Your task to perform on an android device: clear history in the chrome app Image 0: 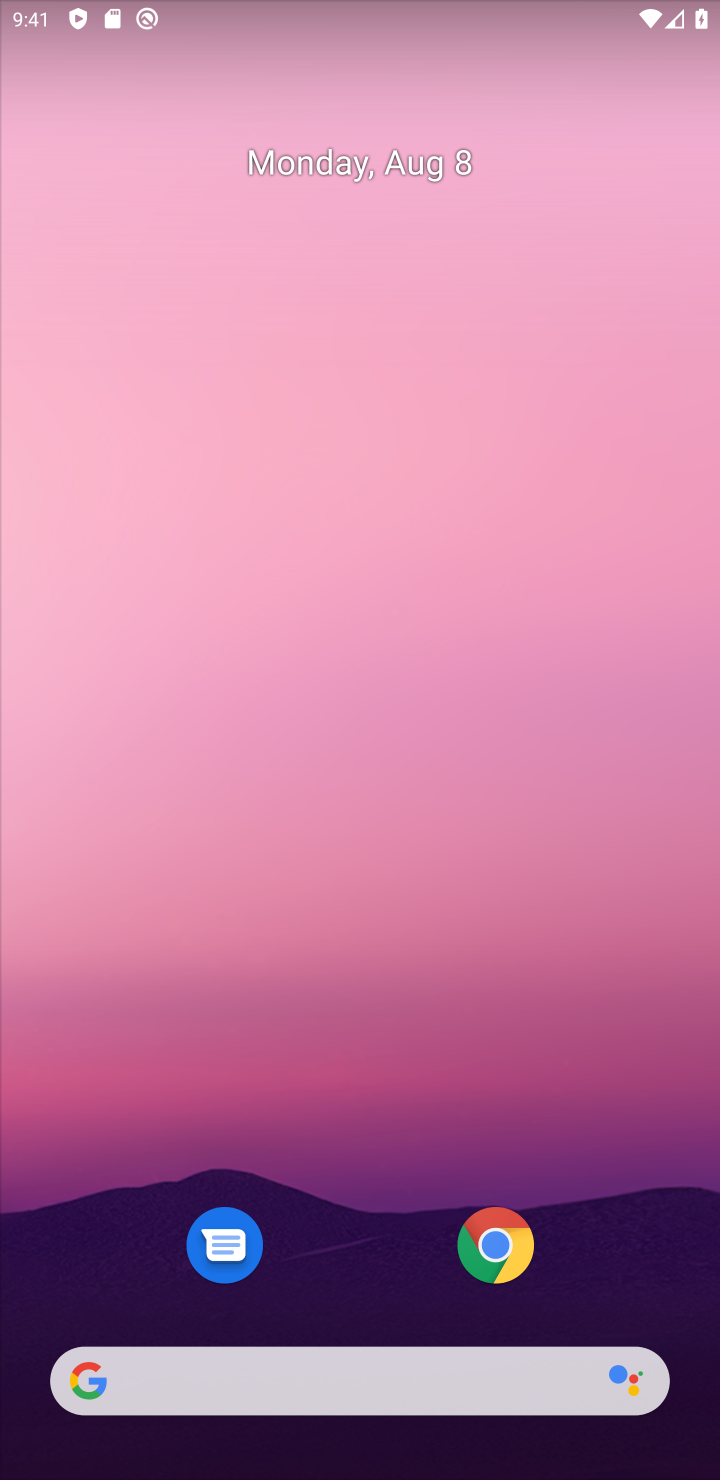
Step 0: click (492, 1247)
Your task to perform on an android device: clear history in the chrome app Image 1: 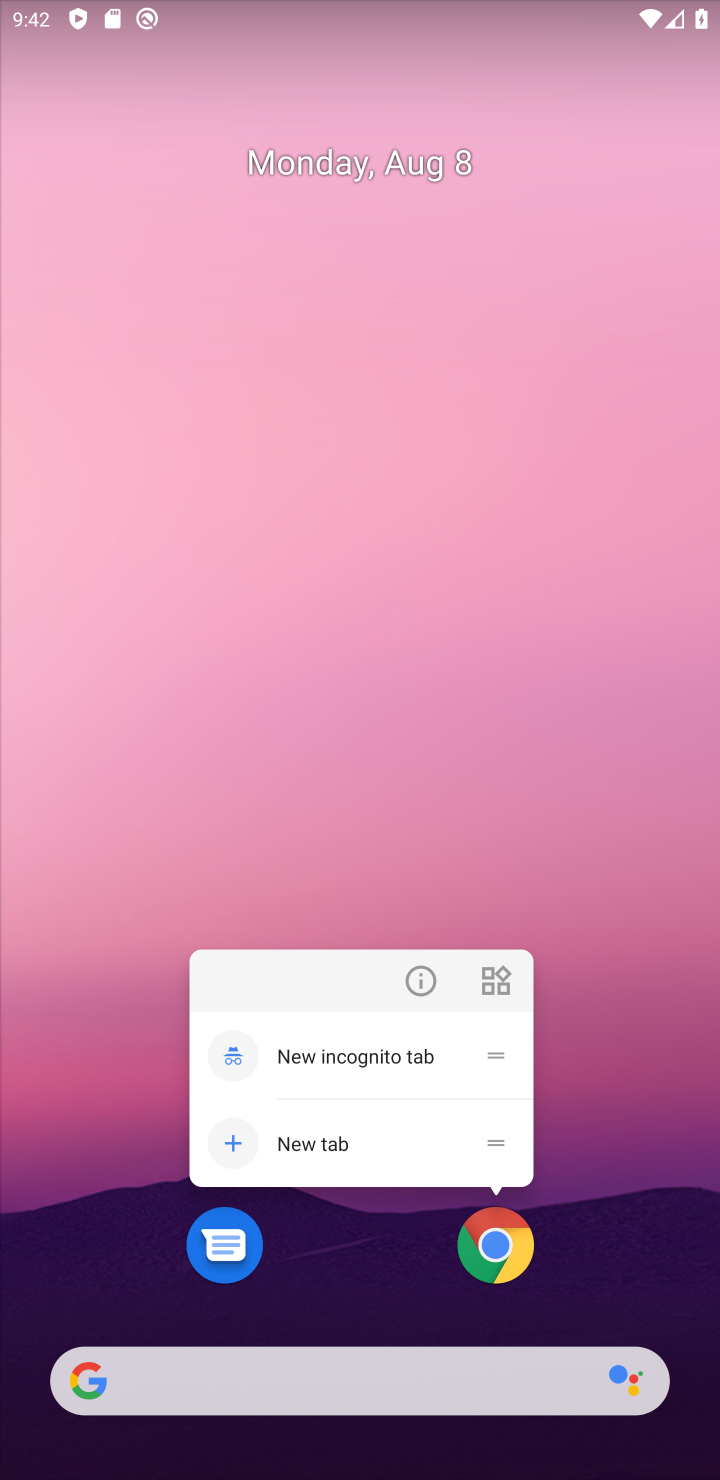
Step 1: click (492, 1247)
Your task to perform on an android device: clear history in the chrome app Image 2: 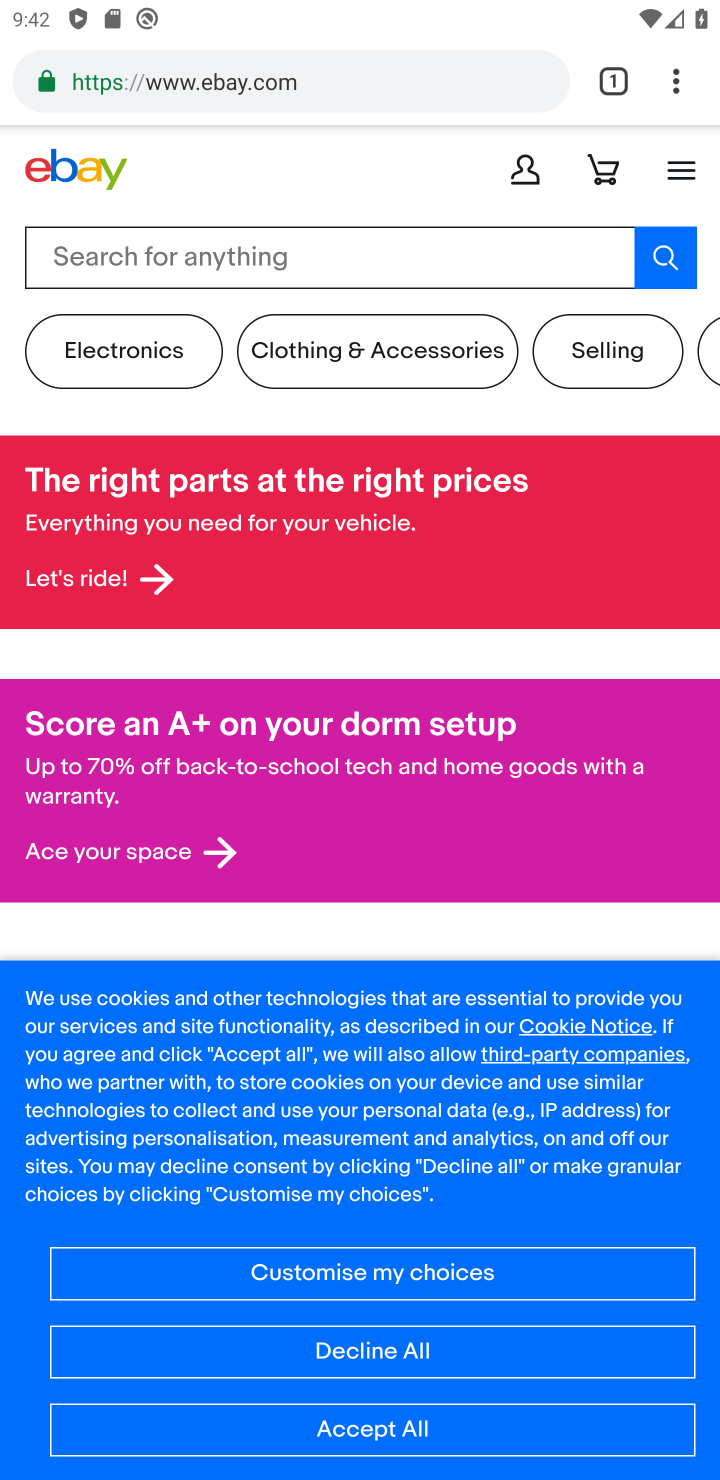
Step 2: click (678, 87)
Your task to perform on an android device: clear history in the chrome app Image 3: 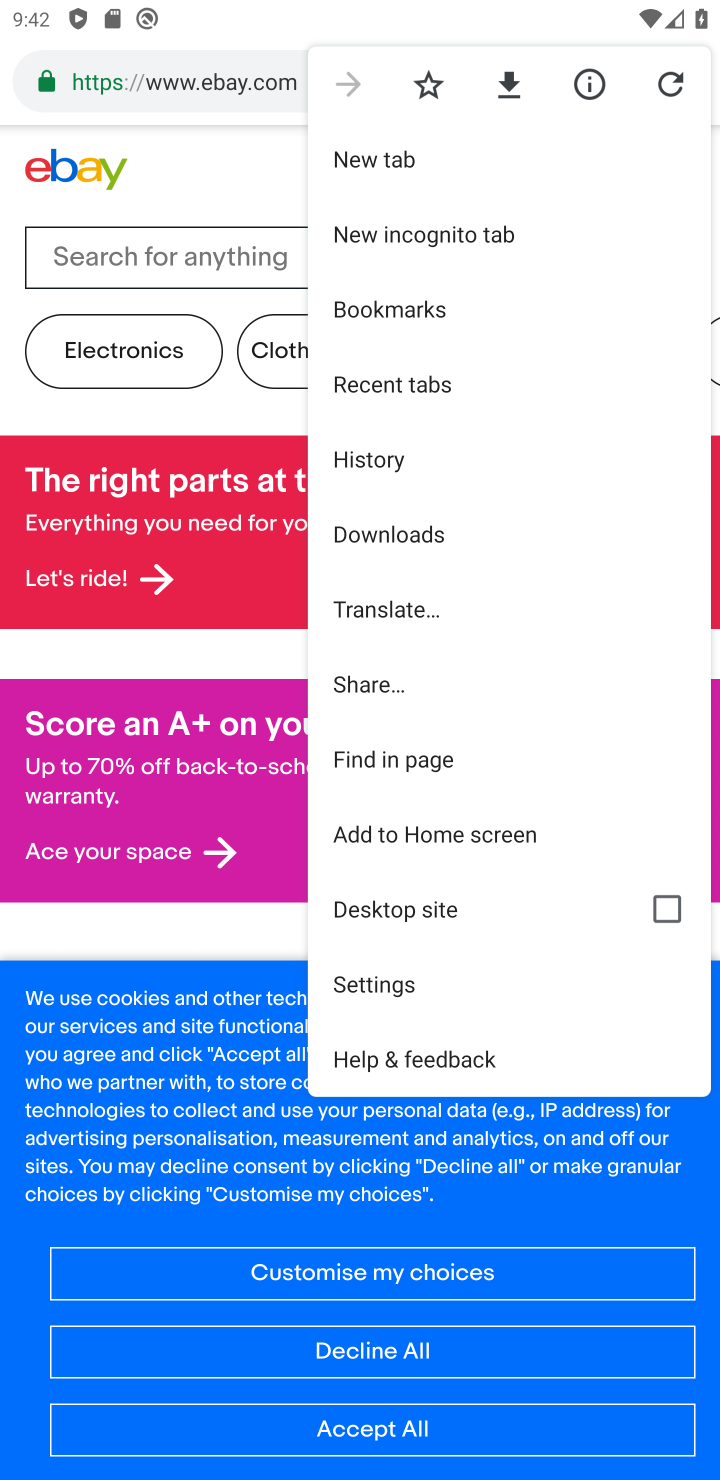
Step 3: click (380, 458)
Your task to perform on an android device: clear history in the chrome app Image 4: 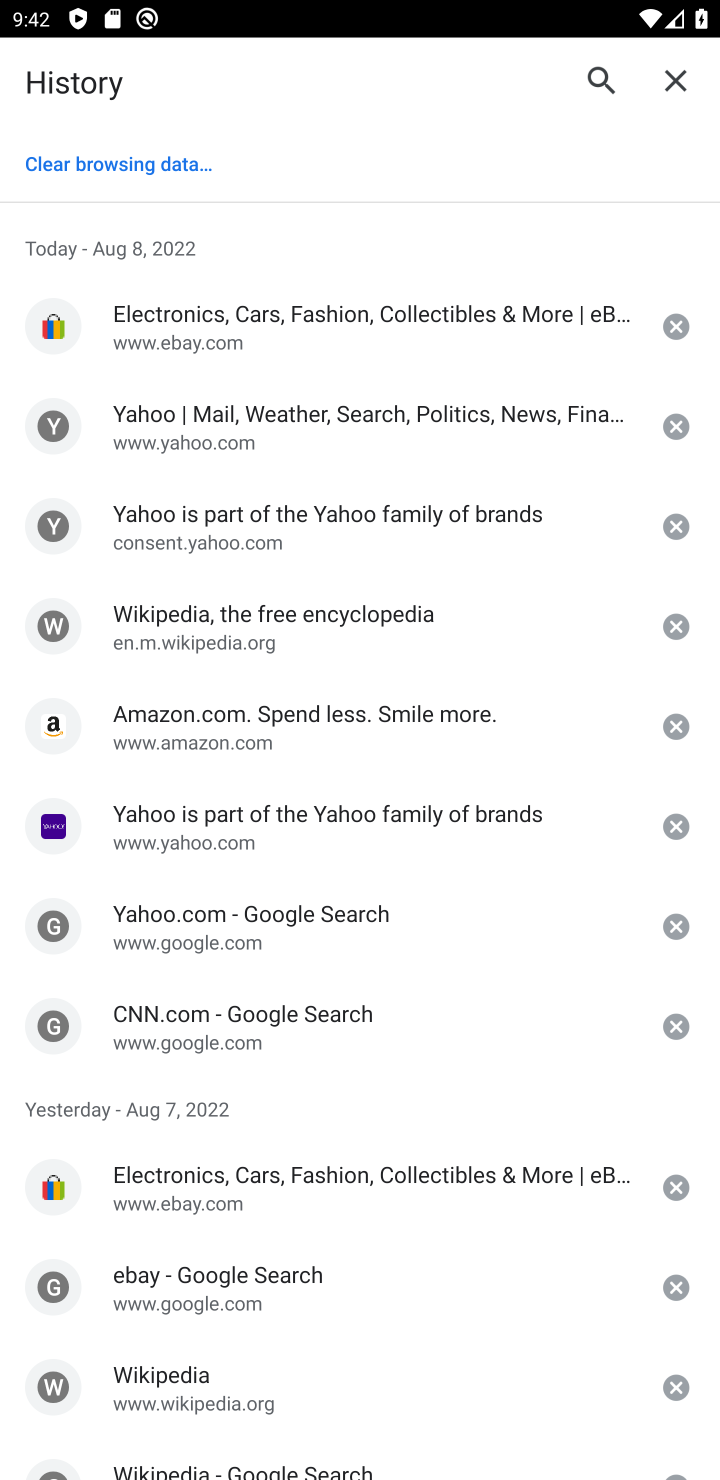
Step 4: click (122, 157)
Your task to perform on an android device: clear history in the chrome app Image 5: 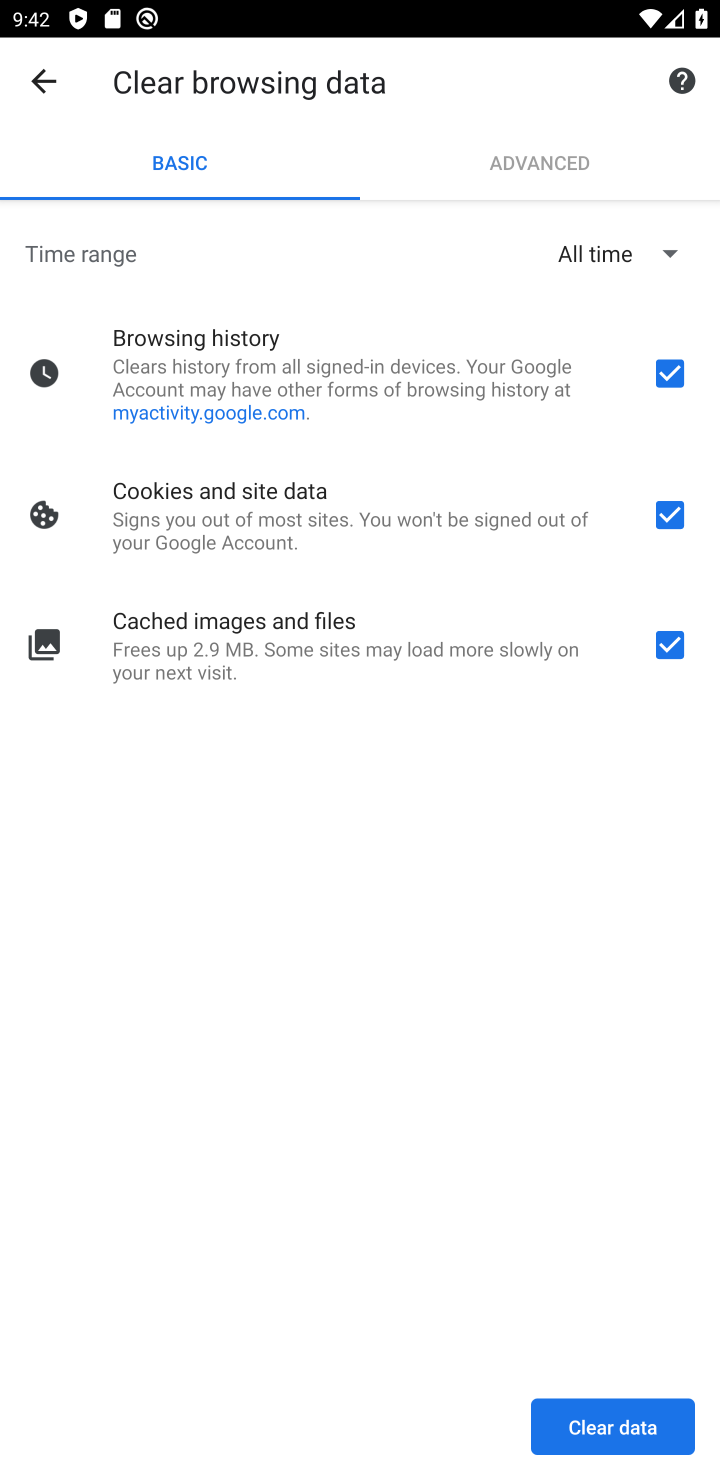
Step 5: click (637, 1427)
Your task to perform on an android device: clear history in the chrome app Image 6: 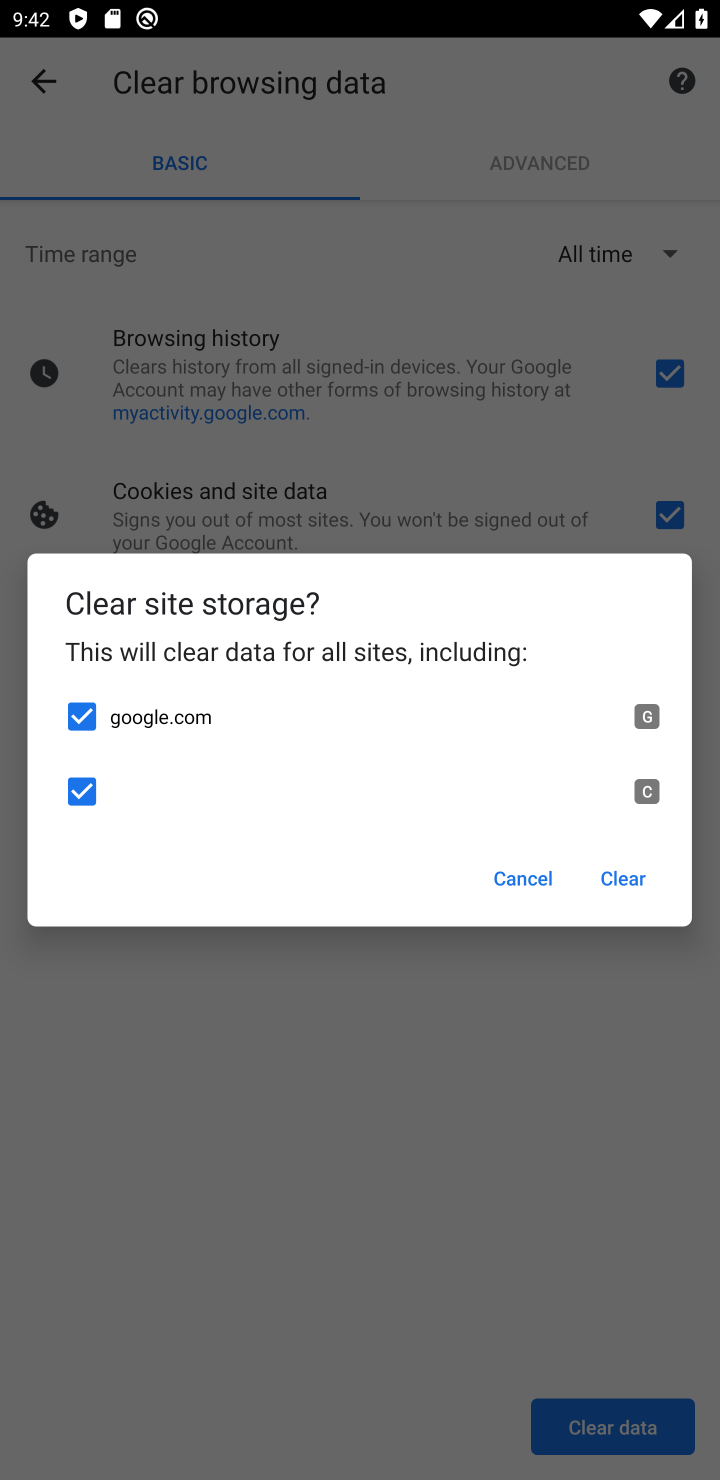
Step 6: click (610, 869)
Your task to perform on an android device: clear history in the chrome app Image 7: 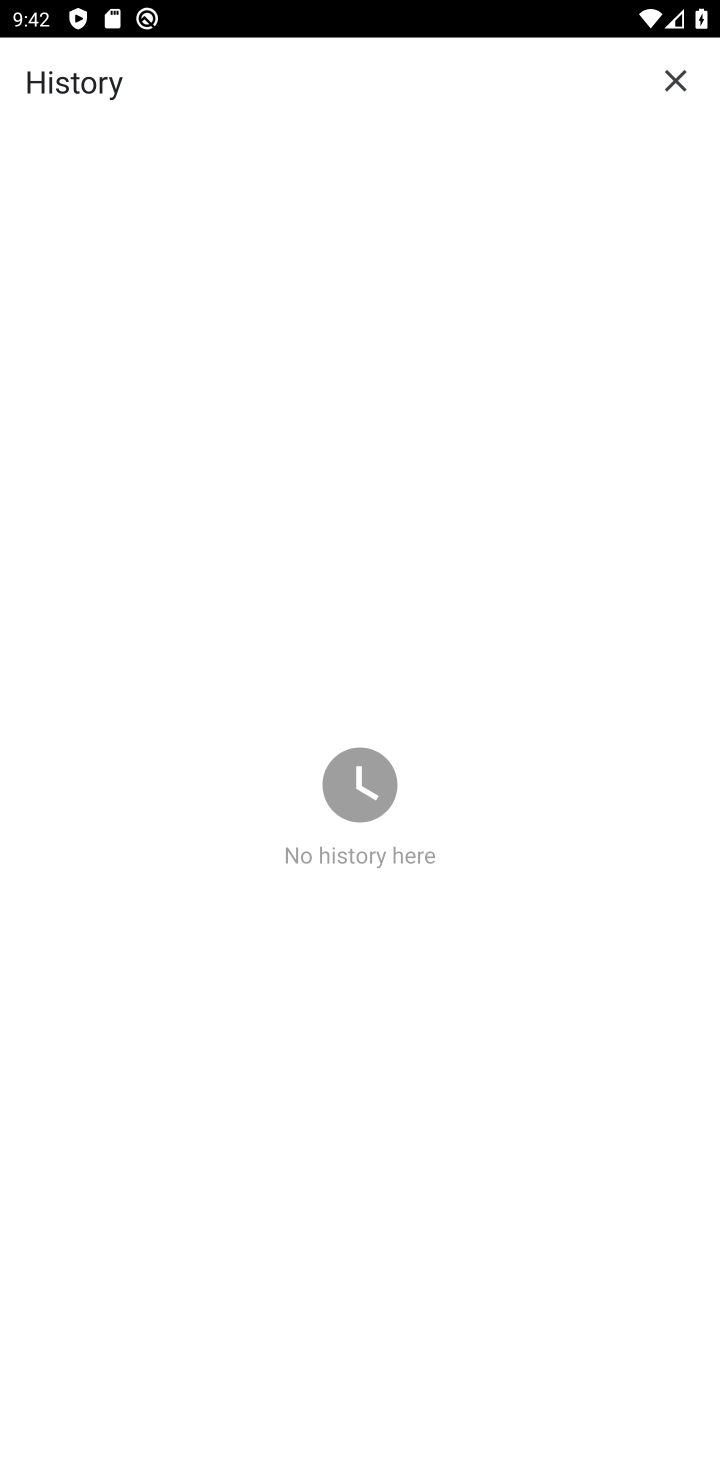
Step 7: task complete